Your task to perform on an android device: Clear all items from cart on ebay.com. Search for "macbook pro 15 inch" on ebay.com, select the first entry, and add it to the cart. Image 0: 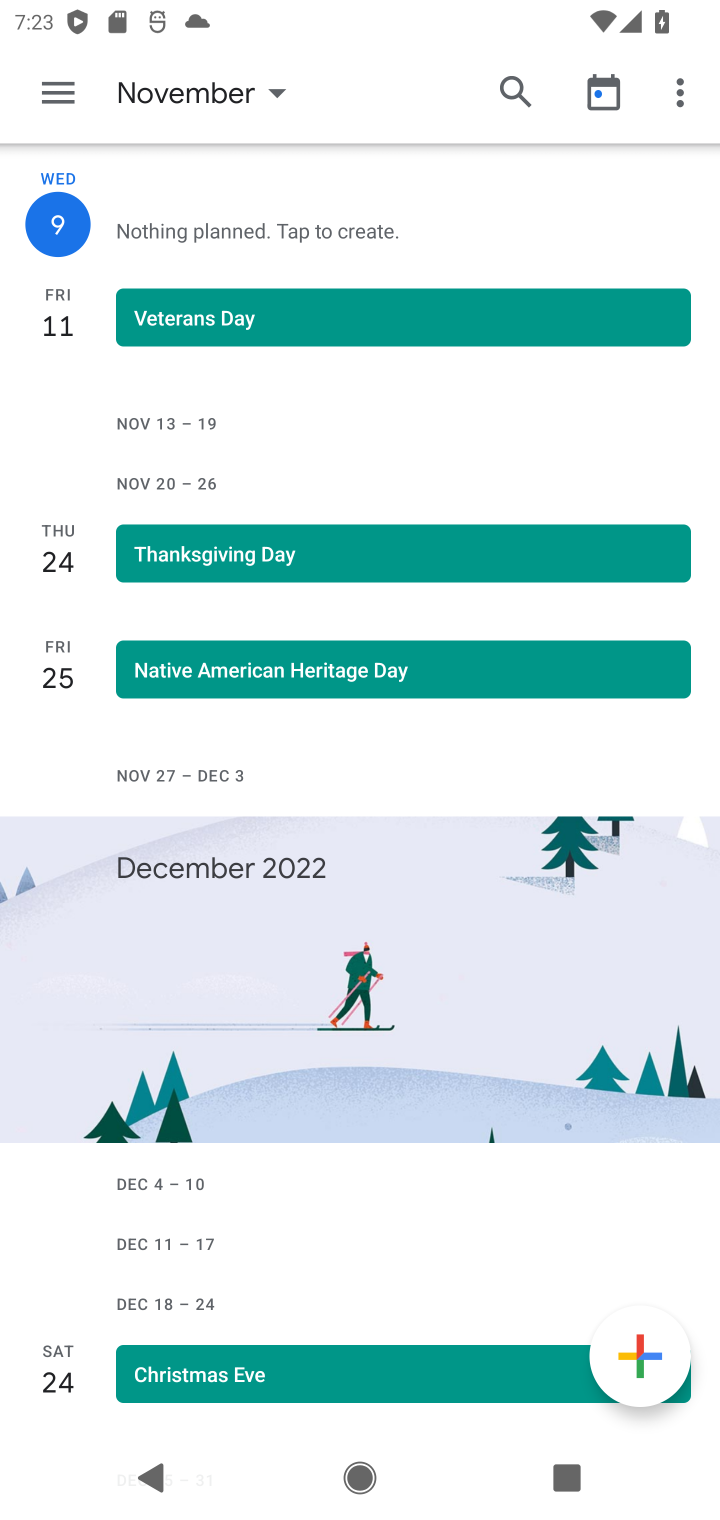
Step 0: press home button
Your task to perform on an android device: Clear all items from cart on ebay.com. Search for "macbook pro 15 inch" on ebay.com, select the first entry, and add it to the cart. Image 1: 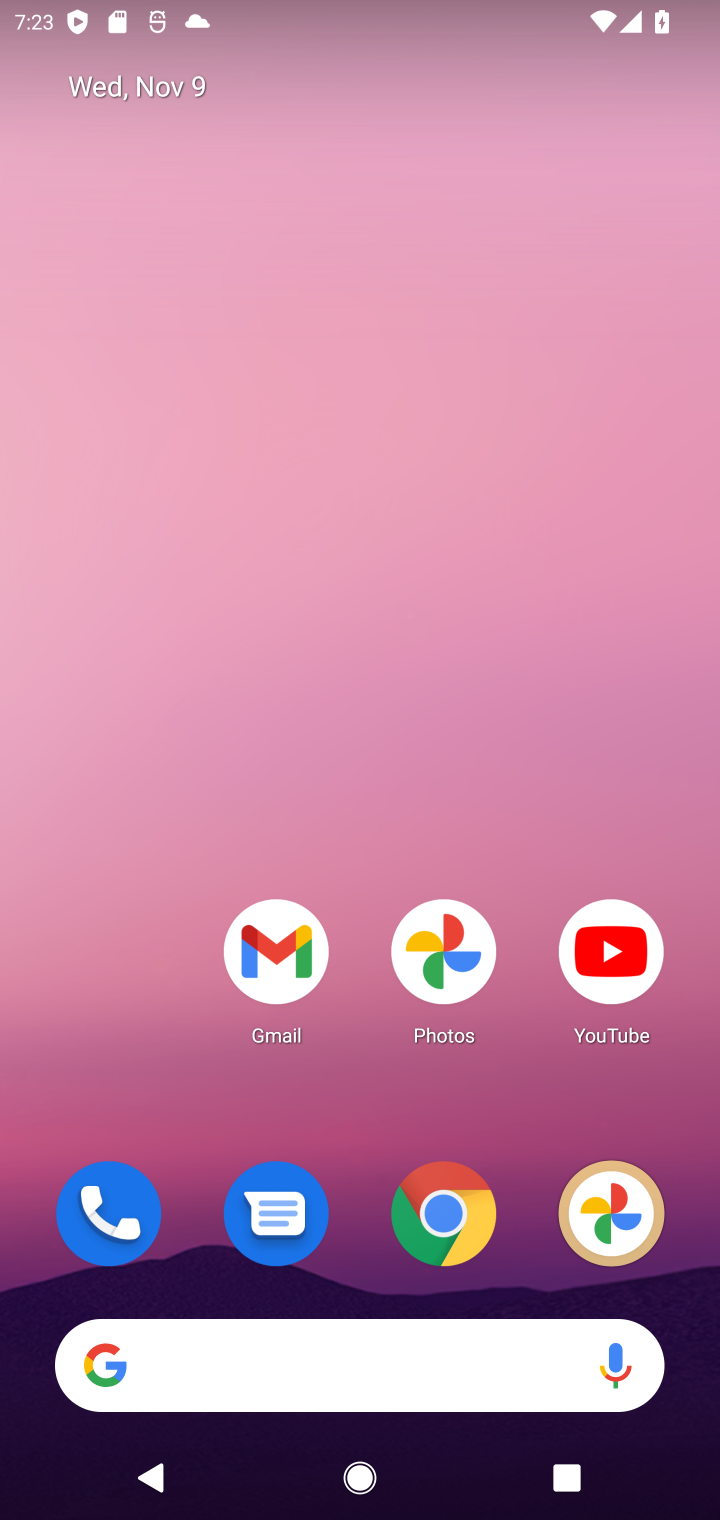
Step 1: click (464, 1221)
Your task to perform on an android device: Clear all items from cart on ebay.com. Search for "macbook pro 15 inch" on ebay.com, select the first entry, and add it to the cart. Image 2: 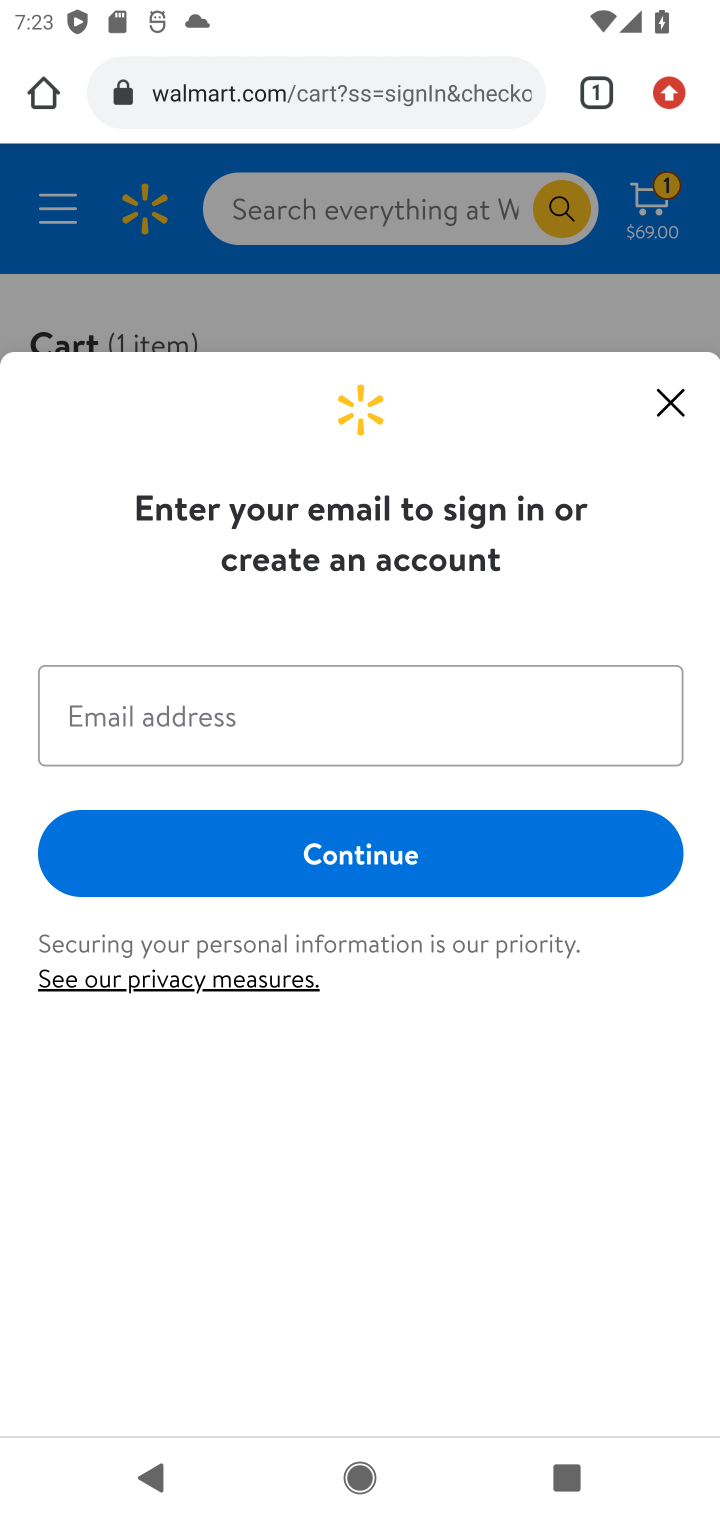
Step 2: click (287, 107)
Your task to perform on an android device: Clear all items from cart on ebay.com. Search for "macbook pro 15 inch" on ebay.com, select the first entry, and add it to the cart. Image 3: 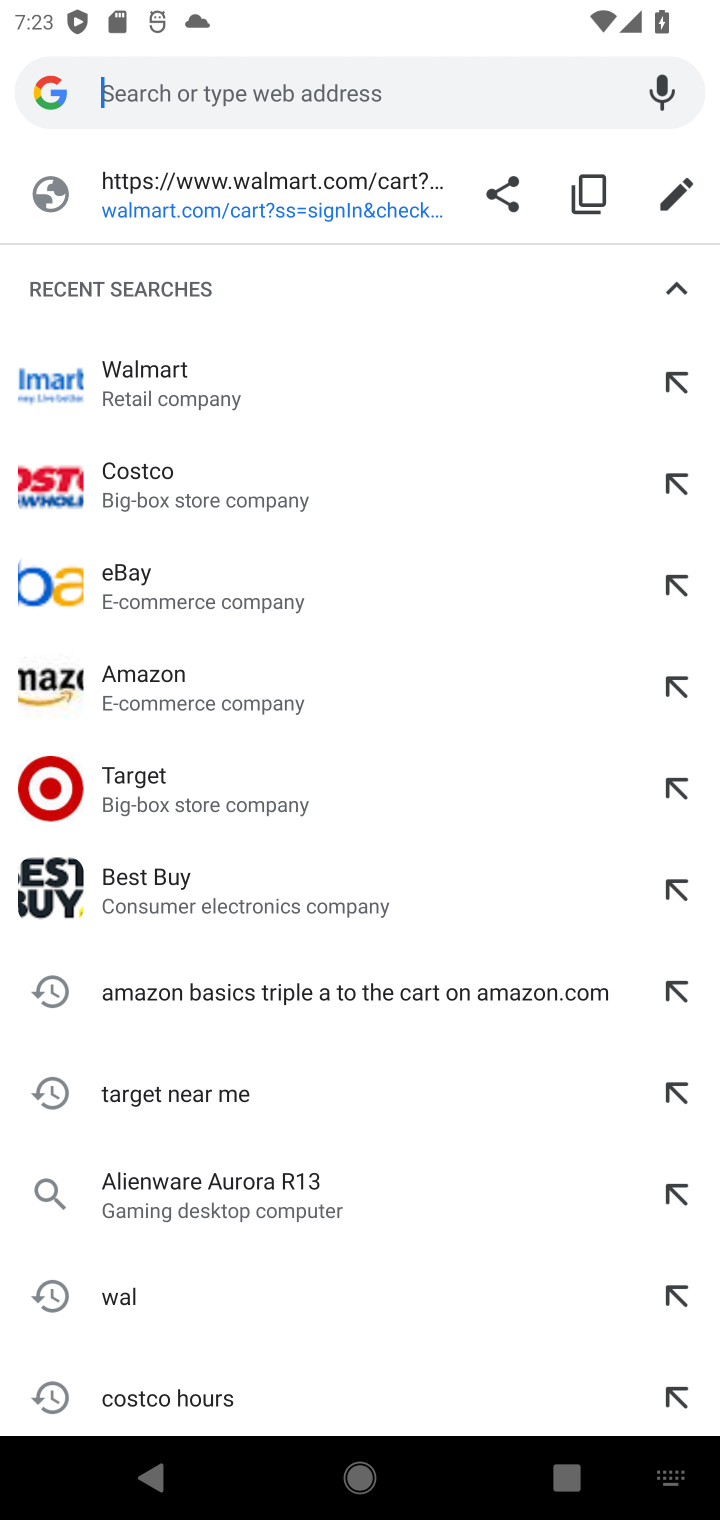
Step 3: click (153, 576)
Your task to perform on an android device: Clear all items from cart on ebay.com. Search for "macbook pro 15 inch" on ebay.com, select the first entry, and add it to the cart. Image 4: 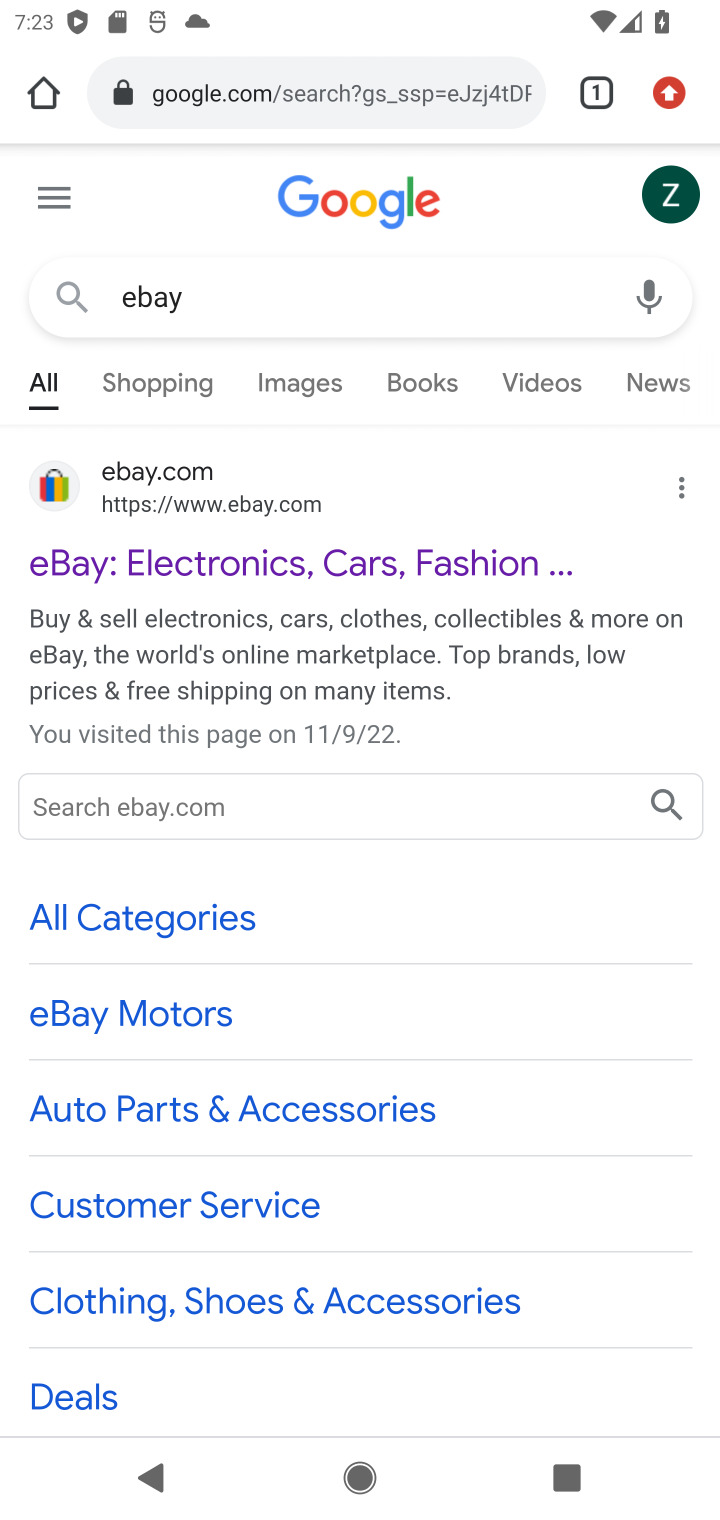
Step 4: click (178, 575)
Your task to perform on an android device: Clear all items from cart on ebay.com. Search for "macbook pro 15 inch" on ebay.com, select the first entry, and add it to the cart. Image 5: 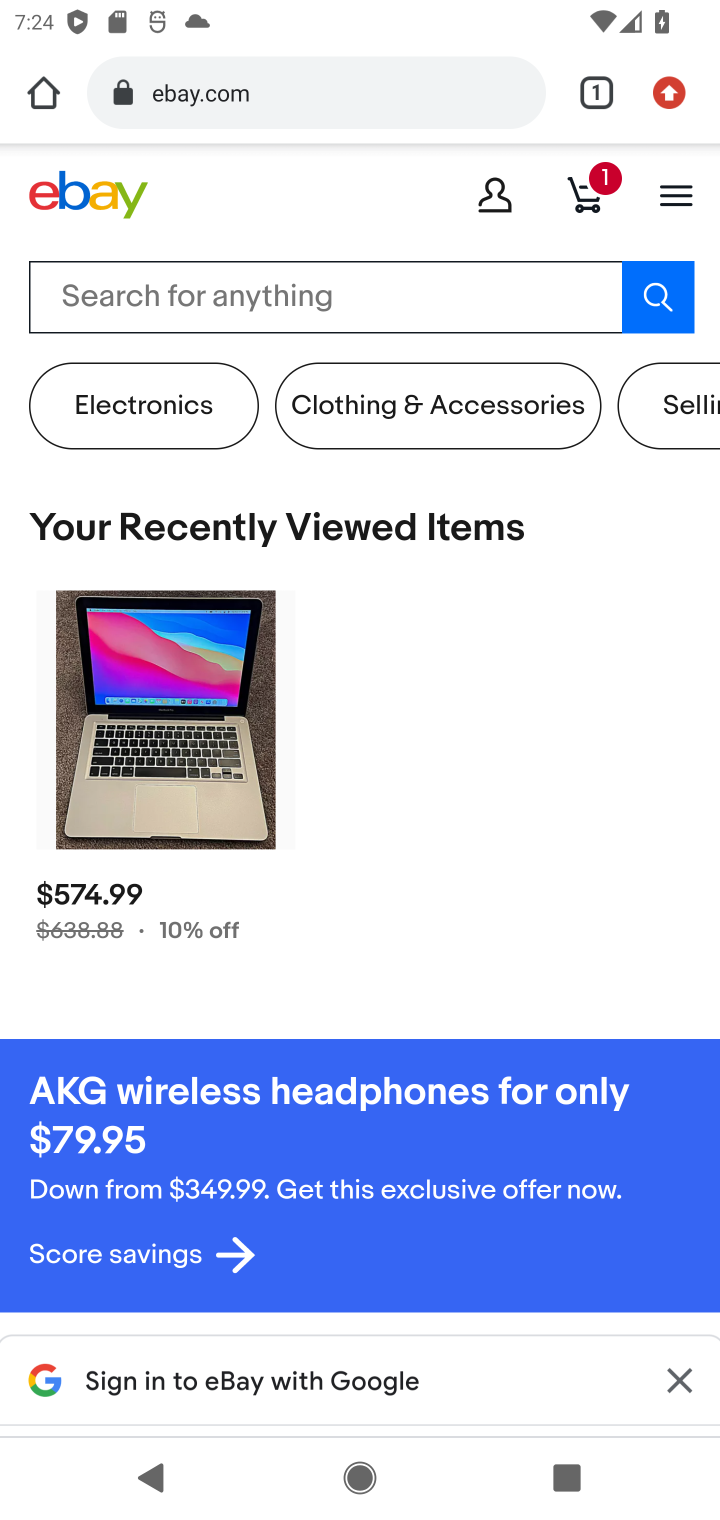
Step 5: click (180, 290)
Your task to perform on an android device: Clear all items from cart on ebay.com. Search for "macbook pro 15 inch" on ebay.com, select the first entry, and add it to the cart. Image 6: 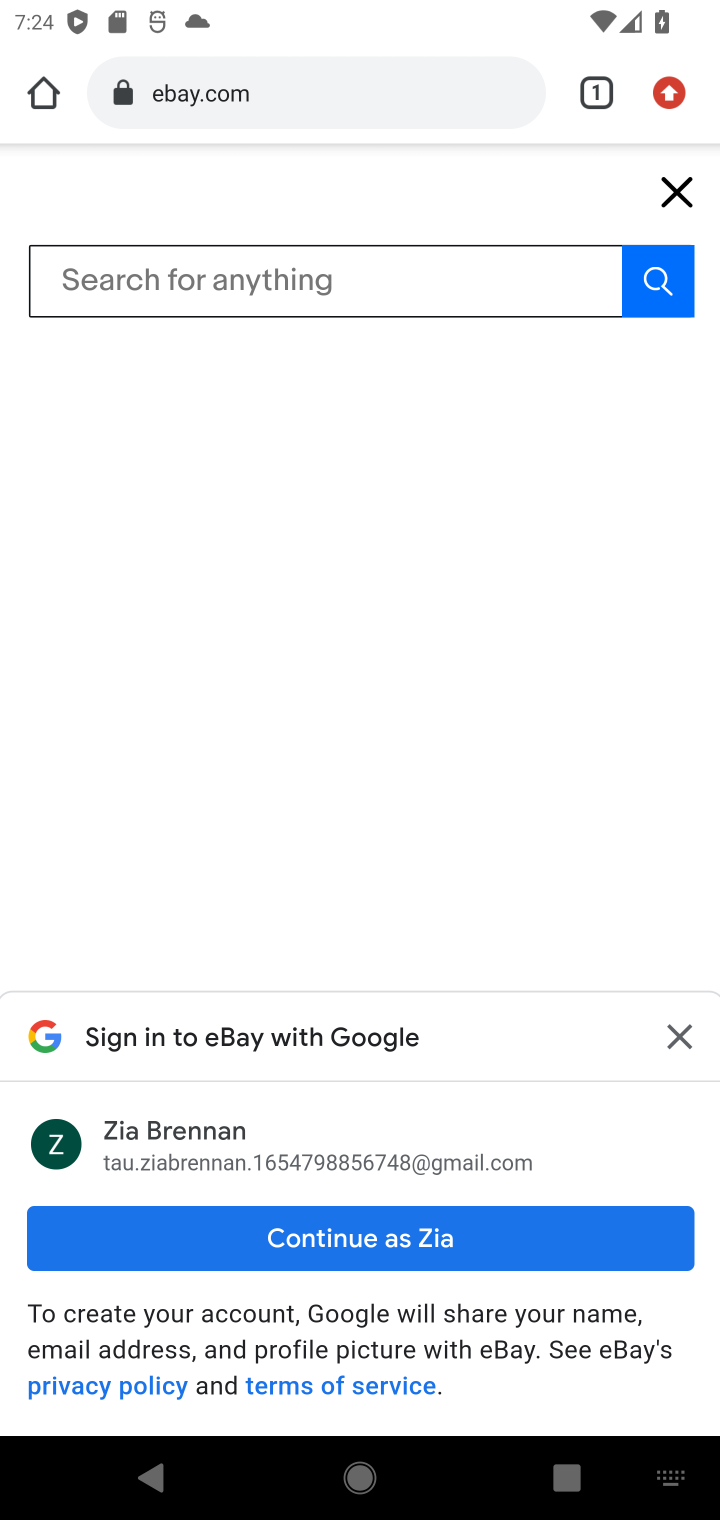
Step 6: type "macbook pro "
Your task to perform on an android device: Clear all items from cart on ebay.com. Search for "macbook pro 15 inch" on ebay.com, select the first entry, and add it to the cart. Image 7: 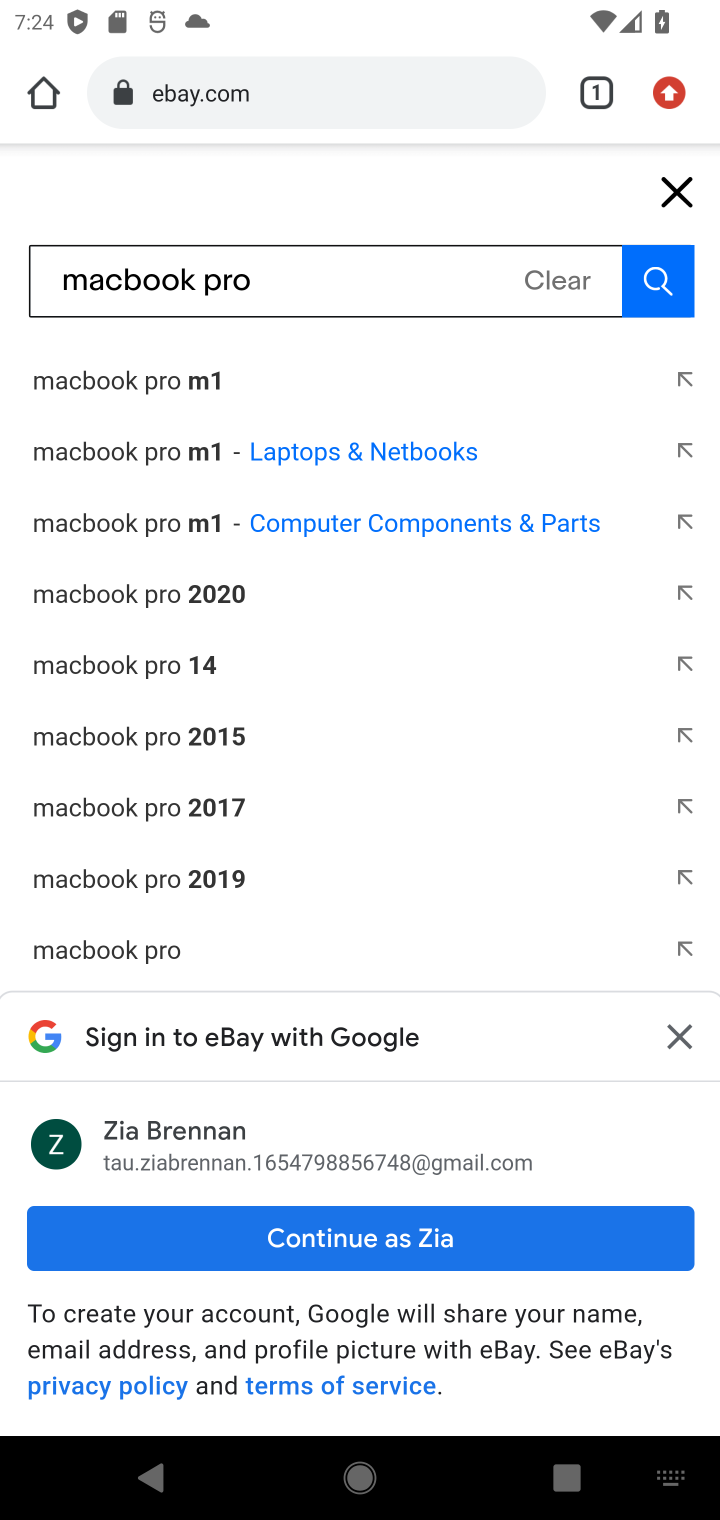
Step 7: click (132, 365)
Your task to perform on an android device: Clear all items from cart on ebay.com. Search for "macbook pro 15 inch" on ebay.com, select the first entry, and add it to the cart. Image 8: 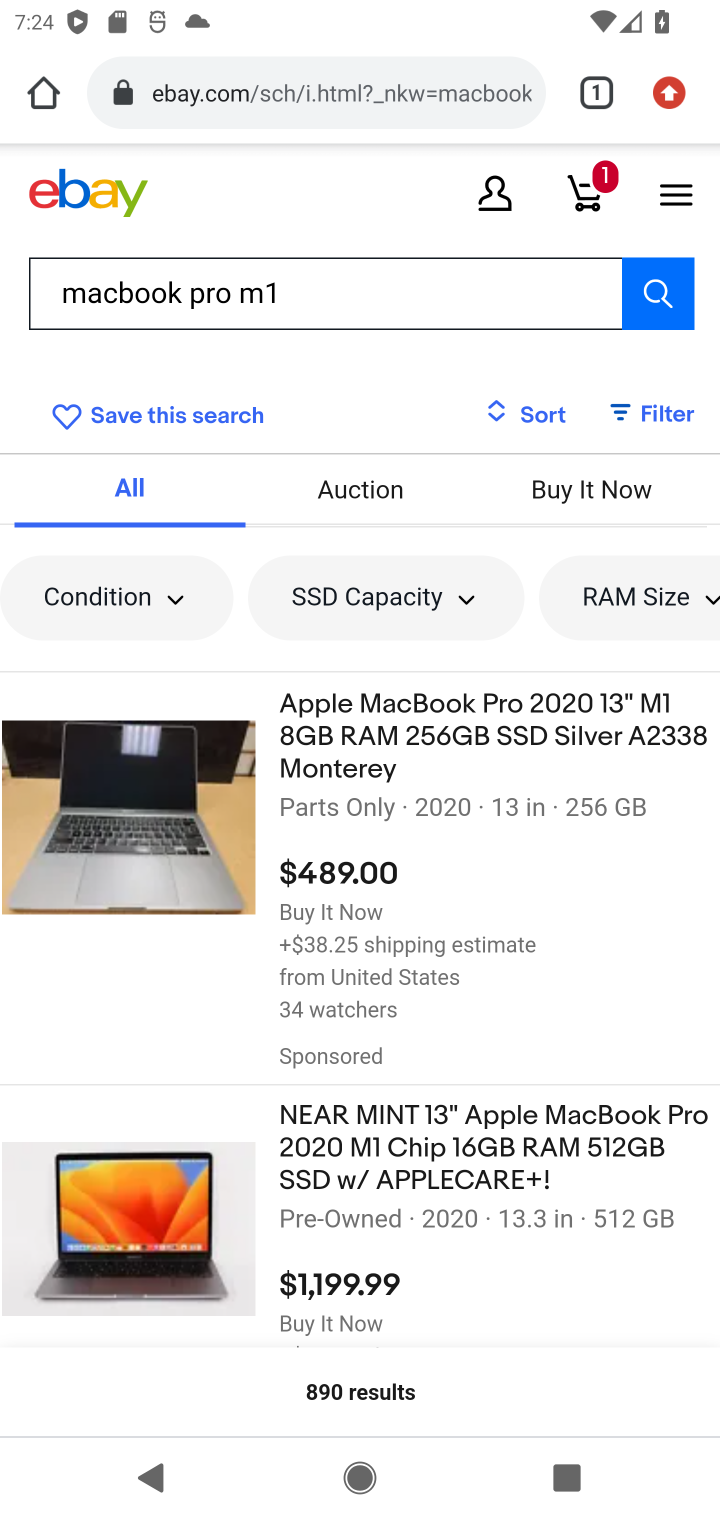
Step 8: click (358, 693)
Your task to perform on an android device: Clear all items from cart on ebay.com. Search for "macbook pro 15 inch" on ebay.com, select the first entry, and add it to the cart. Image 9: 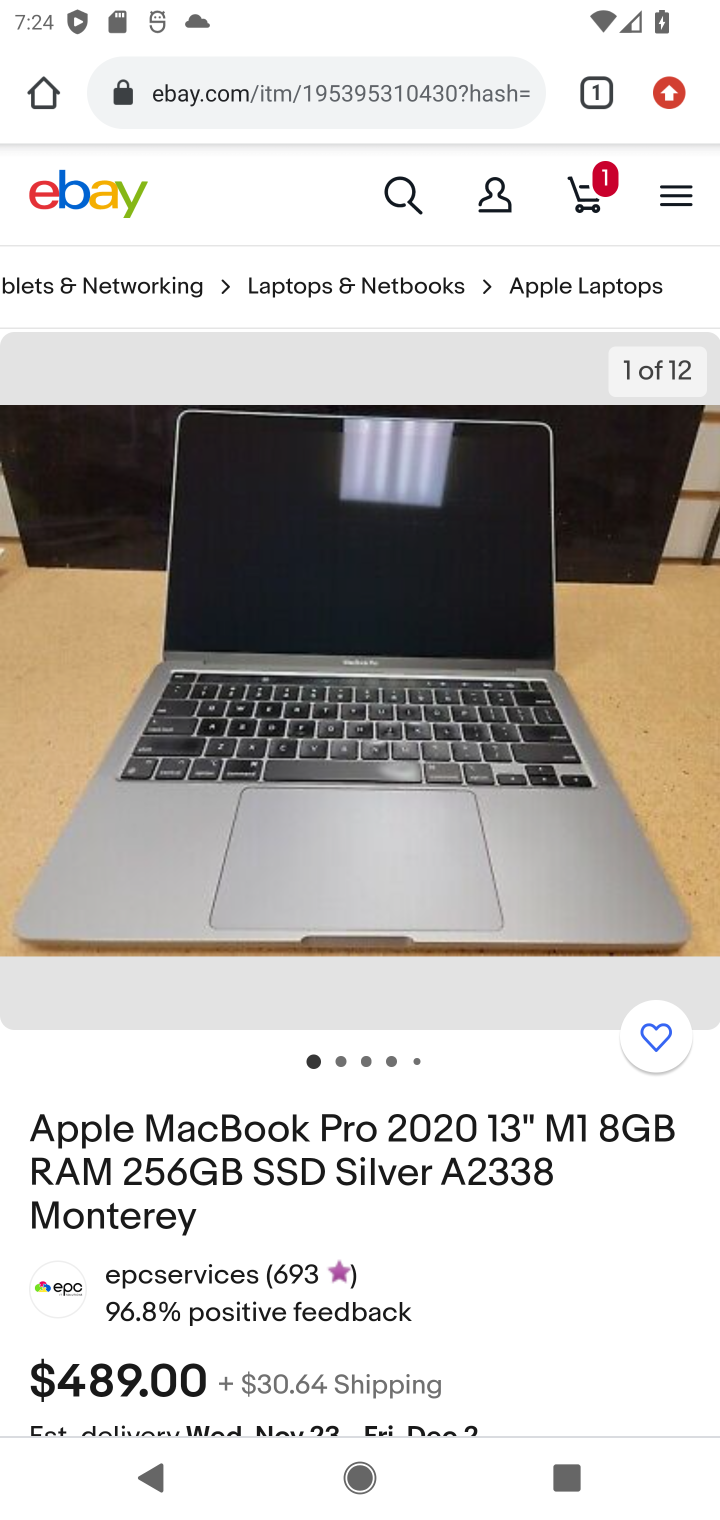
Step 9: drag from (320, 1065) to (338, 688)
Your task to perform on an android device: Clear all items from cart on ebay.com. Search for "macbook pro 15 inch" on ebay.com, select the first entry, and add it to the cart. Image 10: 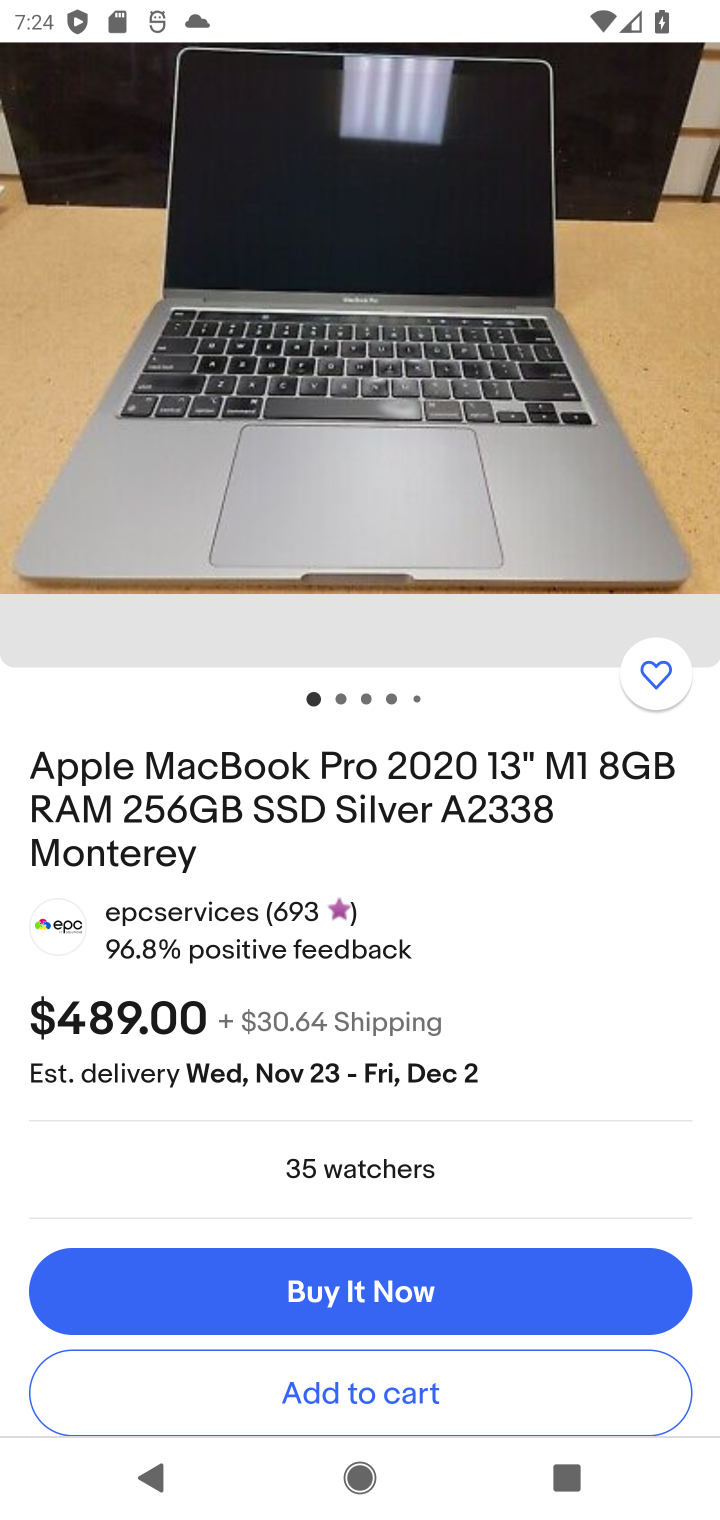
Step 10: drag from (208, 885) to (246, 687)
Your task to perform on an android device: Clear all items from cart on ebay.com. Search for "macbook pro 15 inch" on ebay.com, select the first entry, and add it to the cart. Image 11: 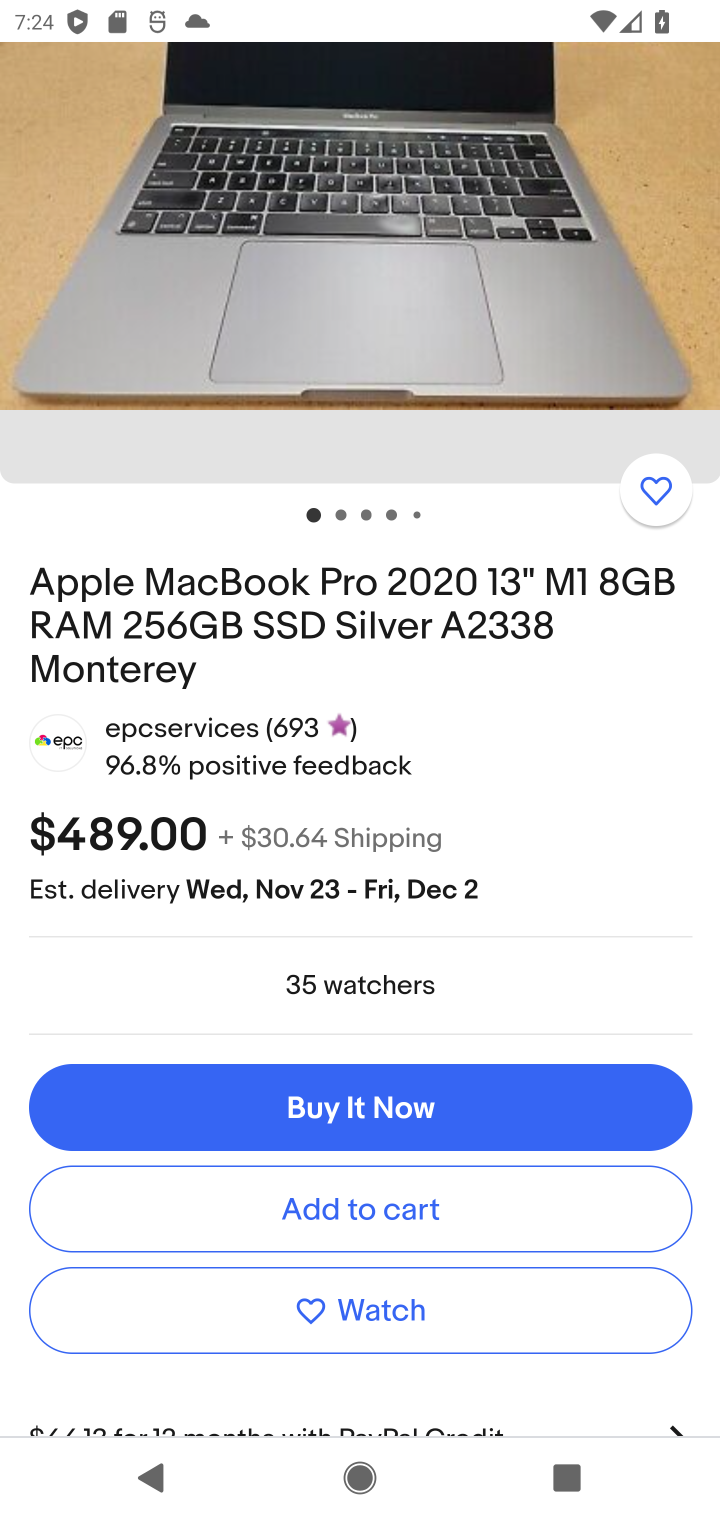
Step 11: click (386, 1215)
Your task to perform on an android device: Clear all items from cart on ebay.com. Search for "macbook pro 15 inch" on ebay.com, select the first entry, and add it to the cart. Image 12: 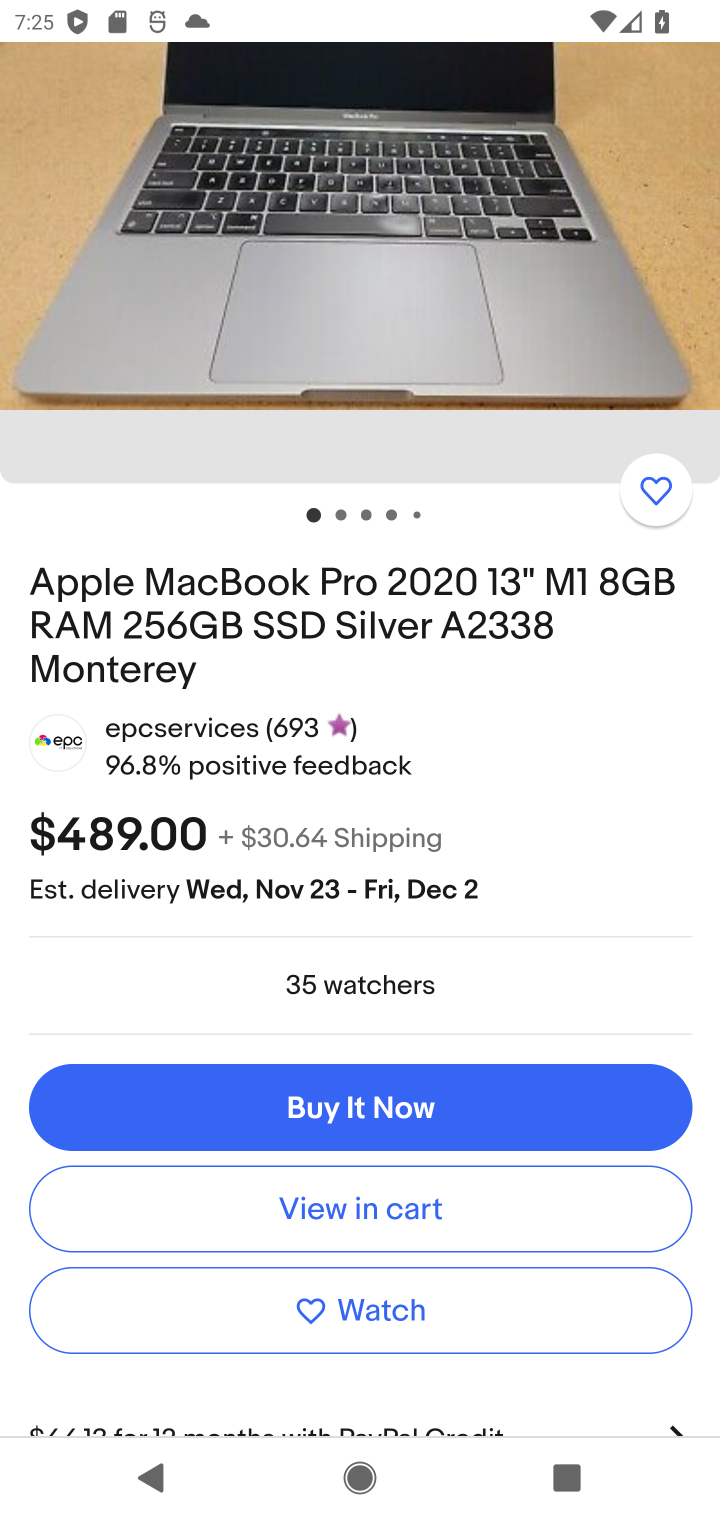
Step 12: click (388, 1215)
Your task to perform on an android device: Clear all items from cart on ebay.com. Search for "macbook pro 15 inch" on ebay.com, select the first entry, and add it to the cart. Image 13: 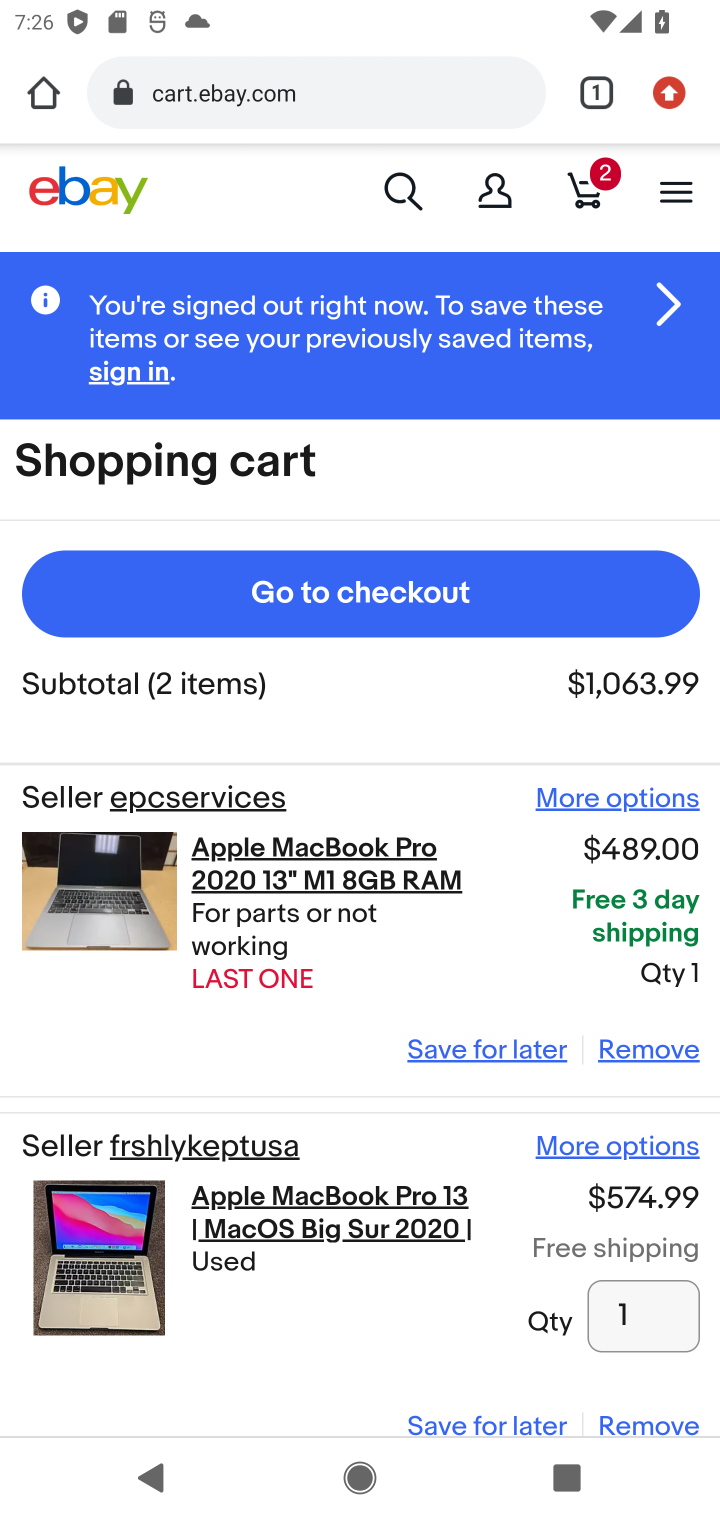
Step 13: task complete